Your task to perform on an android device: Open Maps and search for coffee Image 0: 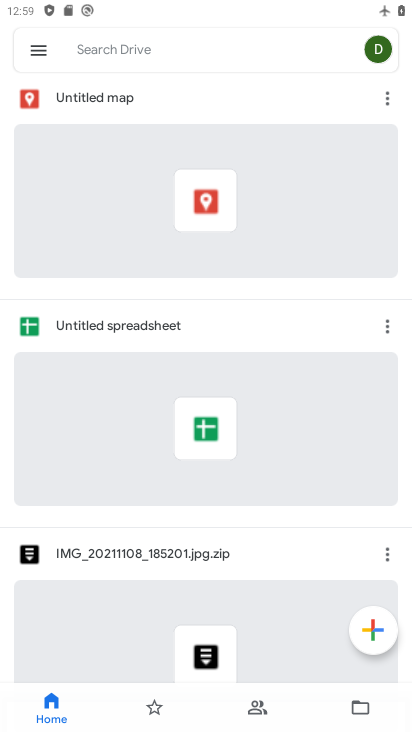
Step 0: press home button
Your task to perform on an android device: Open Maps and search for coffee Image 1: 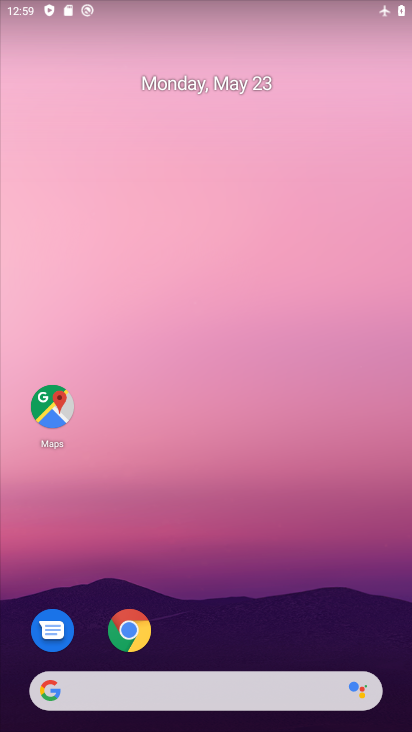
Step 1: drag from (313, 598) to (325, 0)
Your task to perform on an android device: Open Maps and search for coffee Image 2: 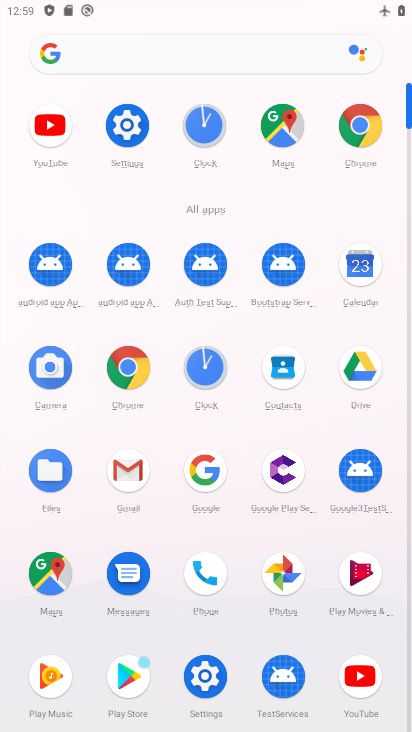
Step 2: click (45, 581)
Your task to perform on an android device: Open Maps and search for coffee Image 3: 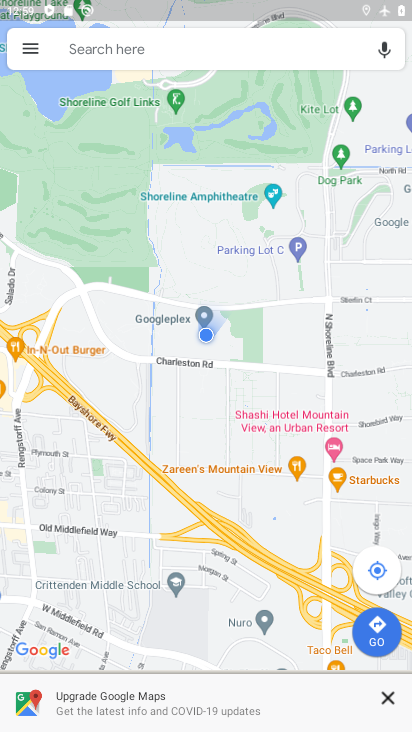
Step 3: click (173, 47)
Your task to perform on an android device: Open Maps and search for coffee Image 4: 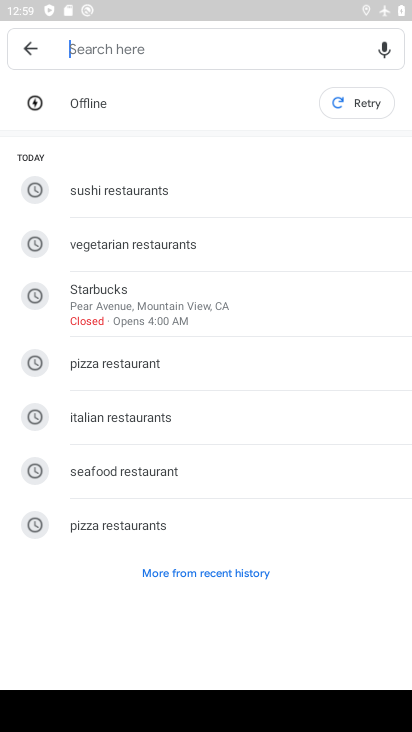
Step 4: type "coffee"
Your task to perform on an android device: Open Maps and search for coffee Image 5: 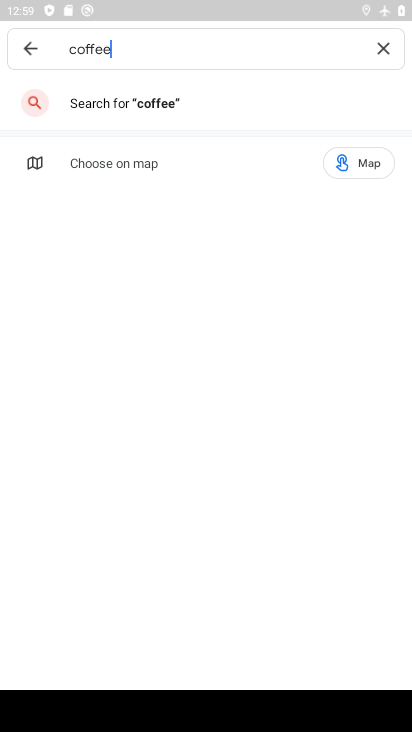
Step 5: click (147, 92)
Your task to perform on an android device: Open Maps and search for coffee Image 6: 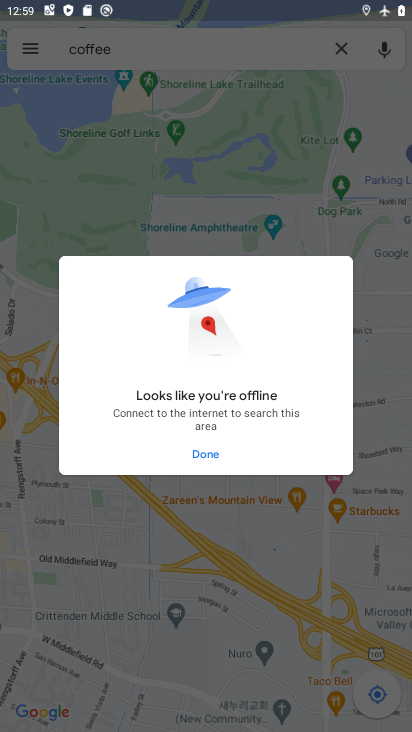
Step 6: task complete